Your task to perform on an android device: turn on the 12-hour format for clock Image 0: 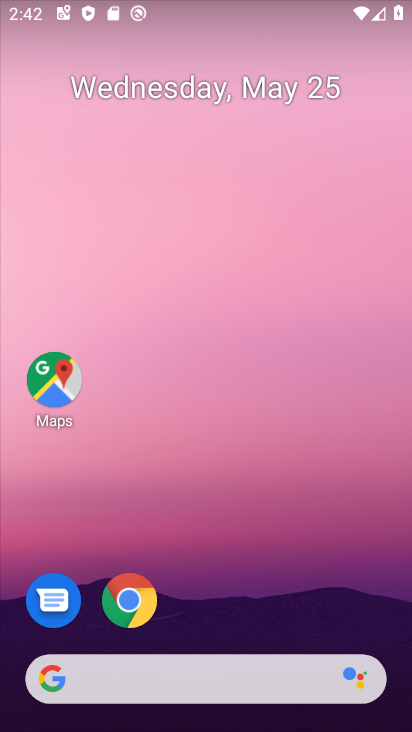
Step 0: press home button
Your task to perform on an android device: turn on the 12-hour format for clock Image 1: 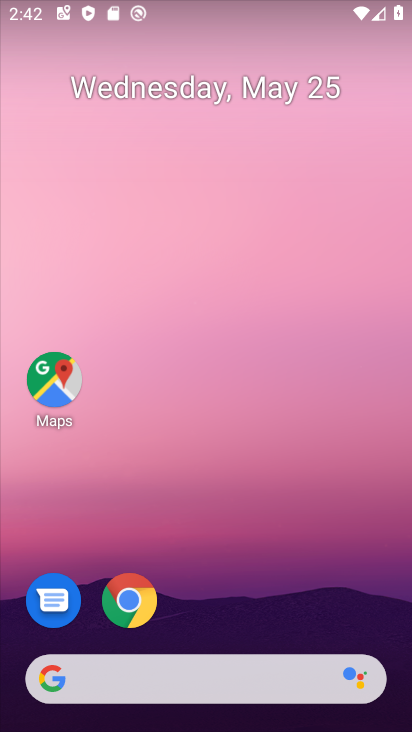
Step 1: drag from (60, 523) to (293, 119)
Your task to perform on an android device: turn on the 12-hour format for clock Image 2: 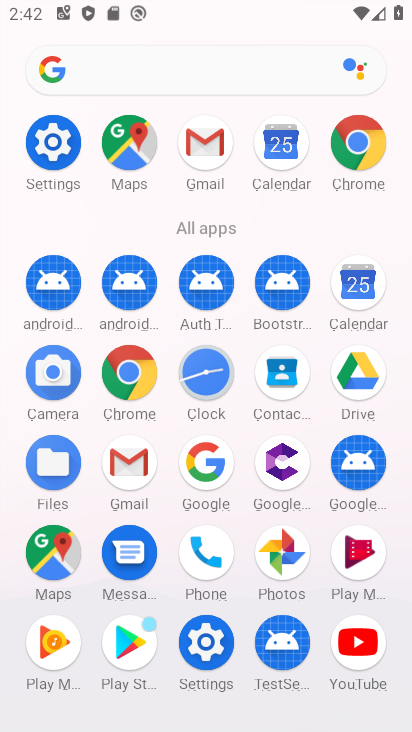
Step 2: click (195, 367)
Your task to perform on an android device: turn on the 12-hour format for clock Image 3: 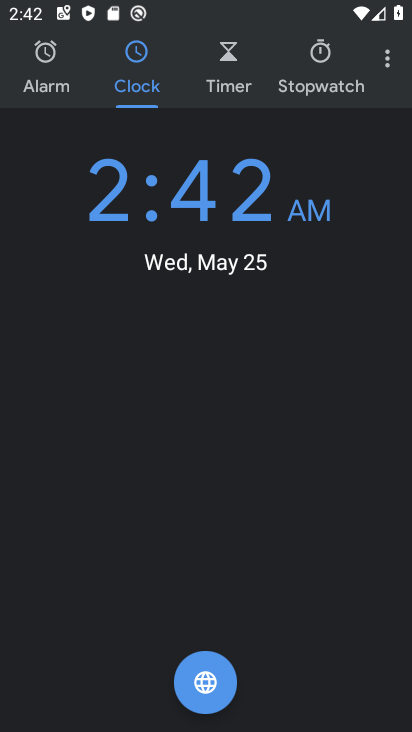
Step 3: click (385, 61)
Your task to perform on an android device: turn on the 12-hour format for clock Image 4: 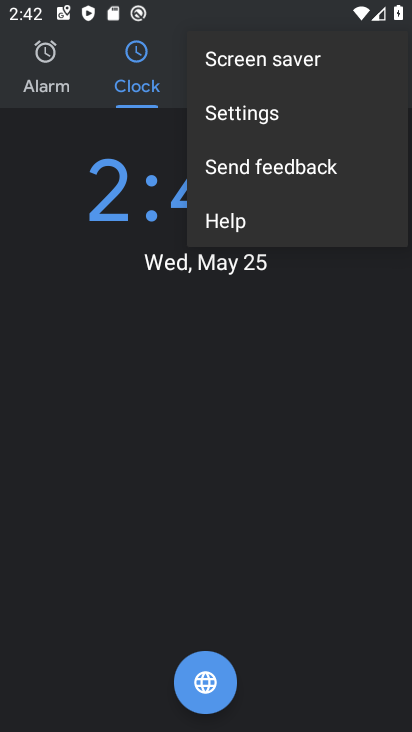
Step 4: click (269, 122)
Your task to perform on an android device: turn on the 12-hour format for clock Image 5: 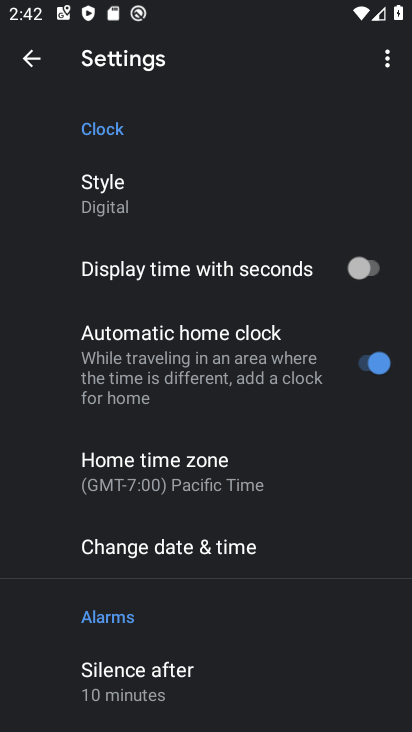
Step 5: drag from (14, 597) to (120, 349)
Your task to perform on an android device: turn on the 12-hour format for clock Image 6: 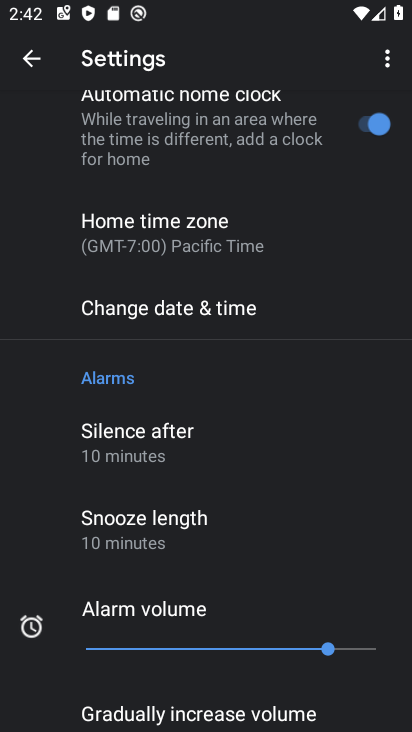
Step 6: click (165, 308)
Your task to perform on an android device: turn on the 12-hour format for clock Image 7: 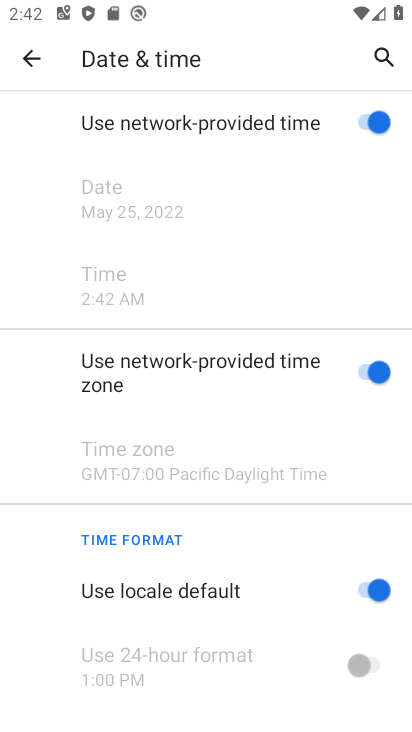
Step 7: task complete